Your task to perform on an android device: toggle sleep mode Image 0: 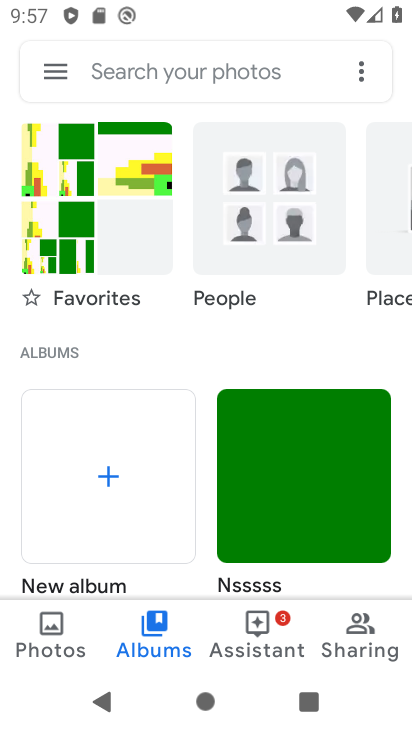
Step 0: press home button
Your task to perform on an android device: toggle sleep mode Image 1: 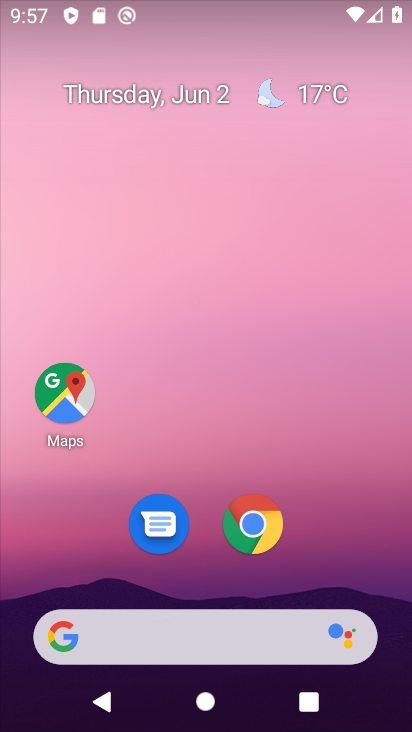
Step 1: drag from (251, 454) to (196, 0)
Your task to perform on an android device: toggle sleep mode Image 2: 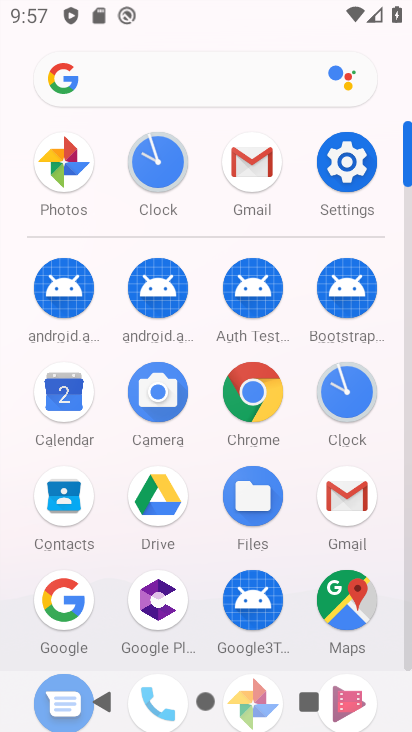
Step 2: click (346, 165)
Your task to perform on an android device: toggle sleep mode Image 3: 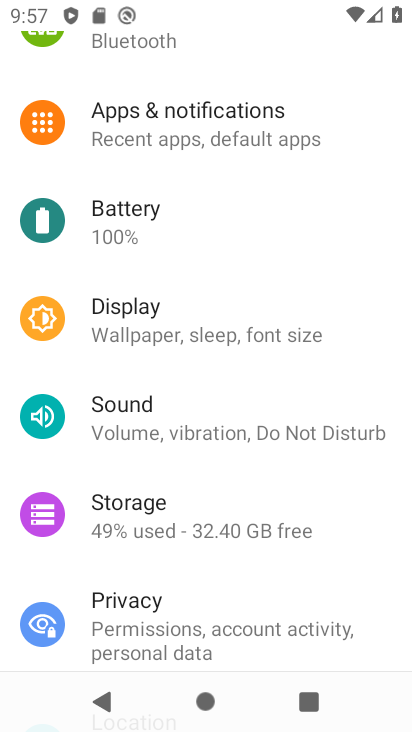
Step 3: click (221, 326)
Your task to perform on an android device: toggle sleep mode Image 4: 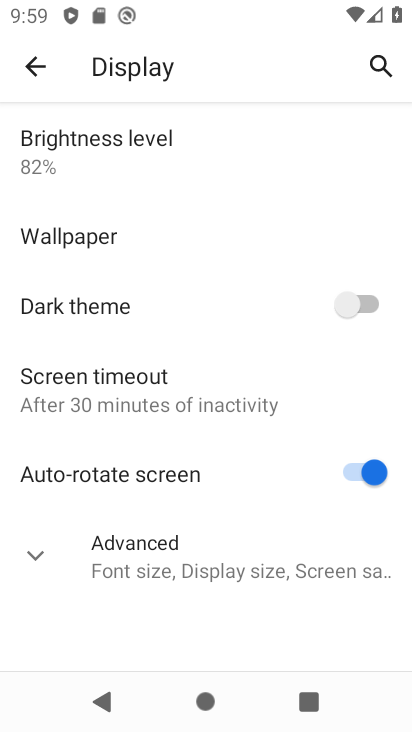
Step 4: task complete